Your task to perform on an android device: turn smart compose on in the gmail app Image 0: 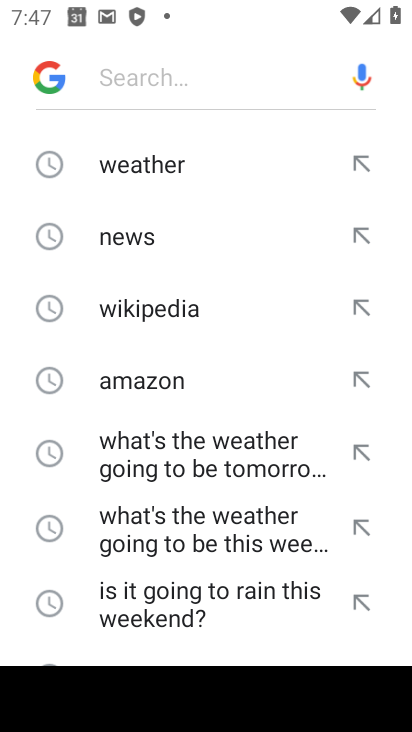
Step 0: press home button
Your task to perform on an android device: turn smart compose on in the gmail app Image 1: 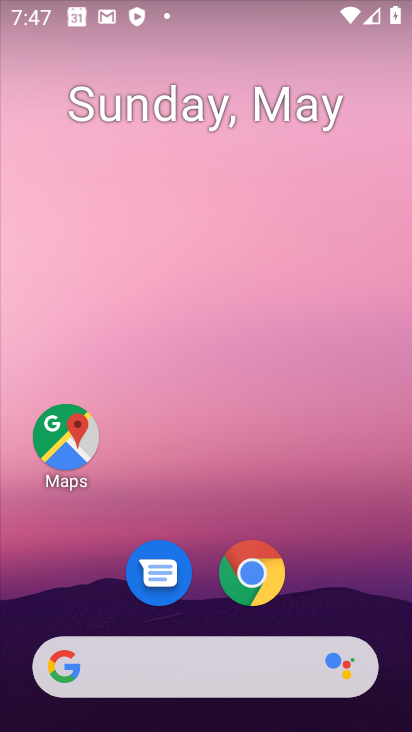
Step 1: drag from (317, 545) to (306, 0)
Your task to perform on an android device: turn smart compose on in the gmail app Image 2: 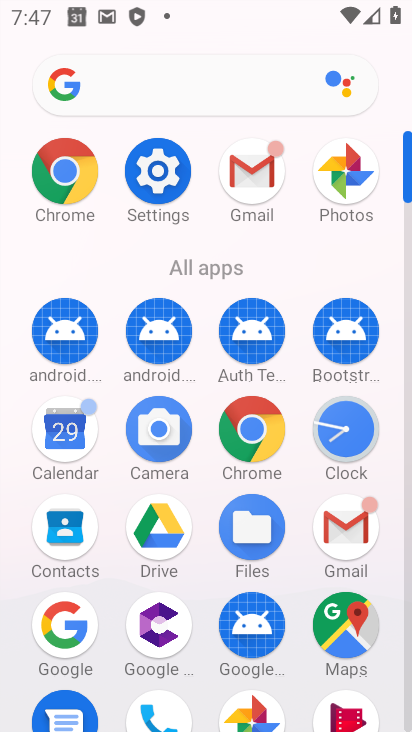
Step 2: click (255, 170)
Your task to perform on an android device: turn smart compose on in the gmail app Image 3: 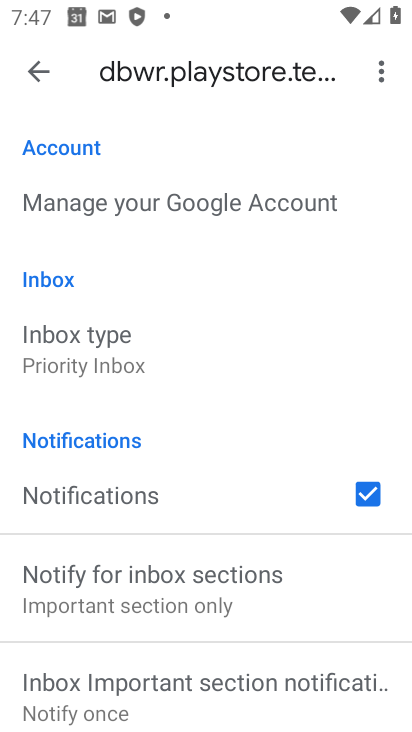
Step 3: task complete